Your task to perform on an android device: Add apple airpods pro to the cart on ebay.com Image 0: 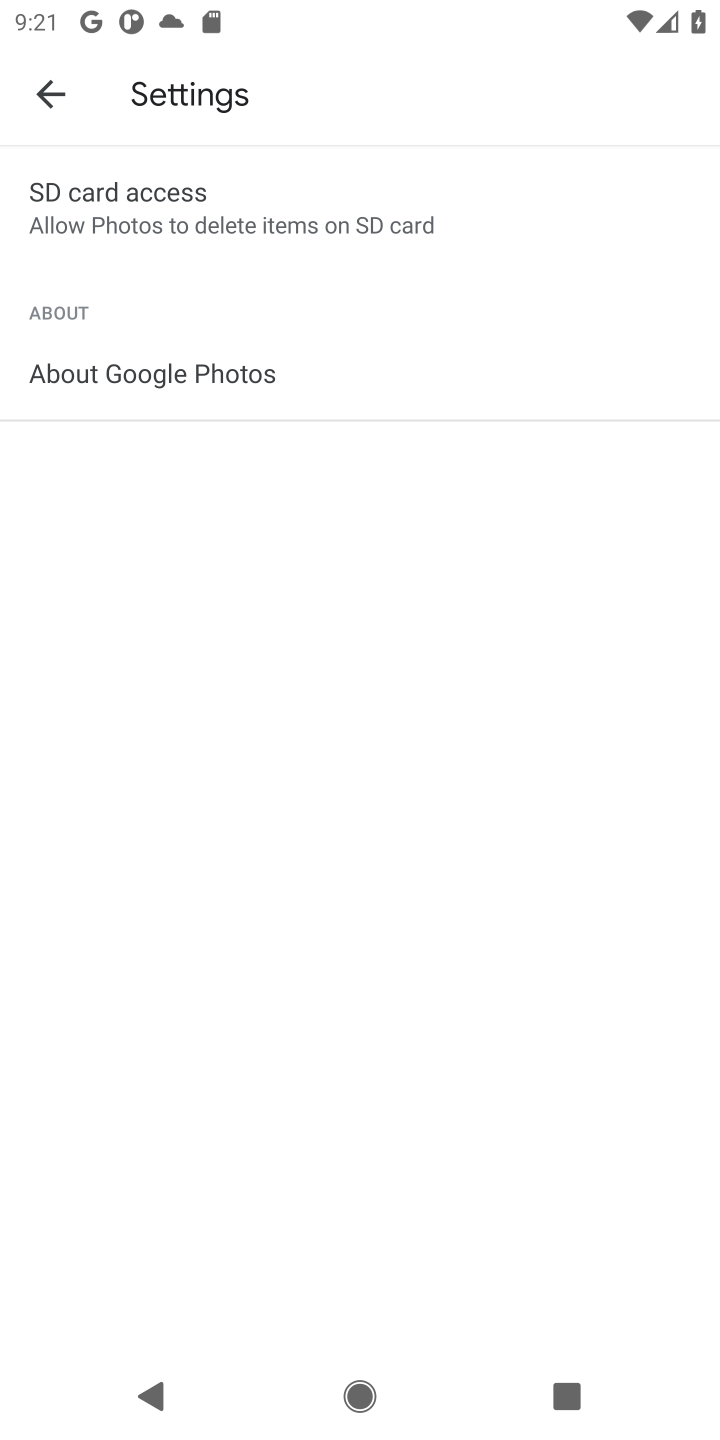
Step 0: press home button
Your task to perform on an android device: Add apple airpods pro to the cart on ebay.com Image 1: 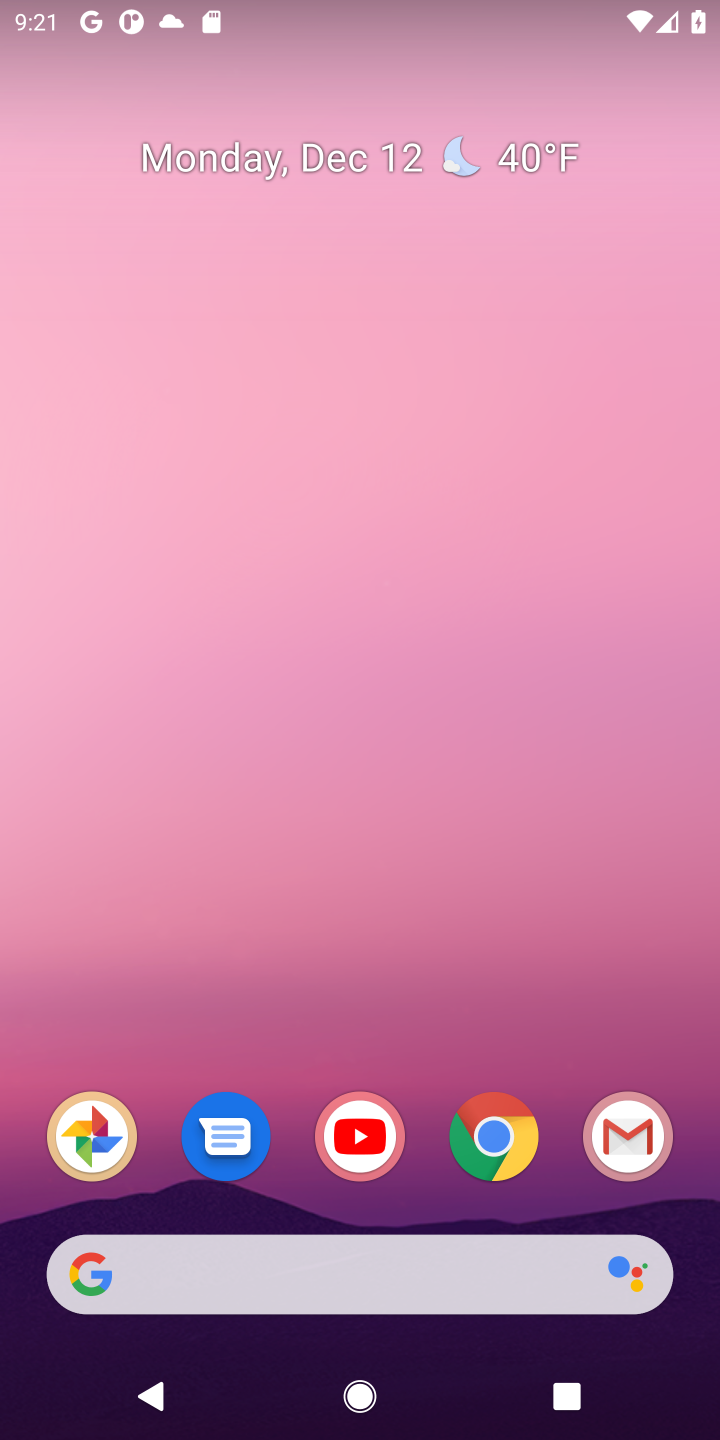
Step 1: click (503, 1145)
Your task to perform on an android device: Add apple airpods pro to the cart on ebay.com Image 2: 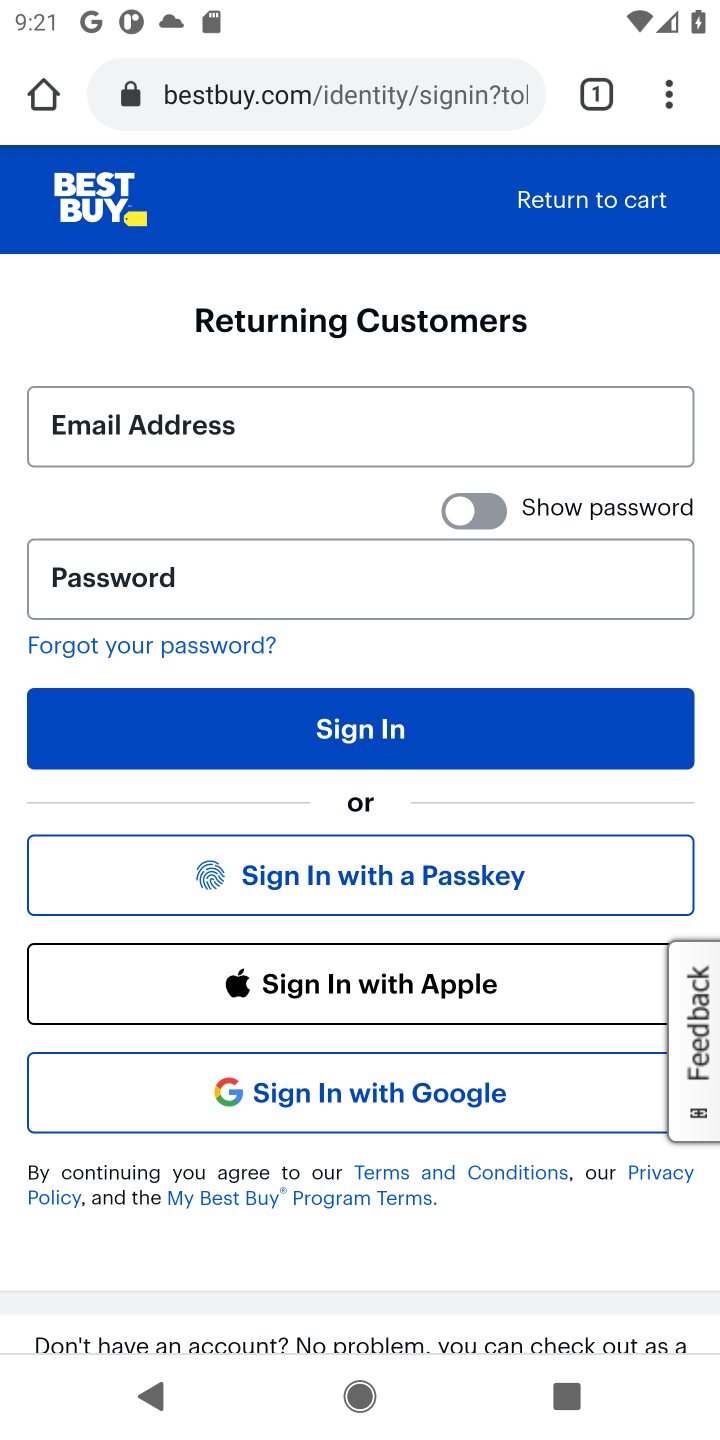
Step 2: click (264, 100)
Your task to perform on an android device: Add apple airpods pro to the cart on ebay.com Image 3: 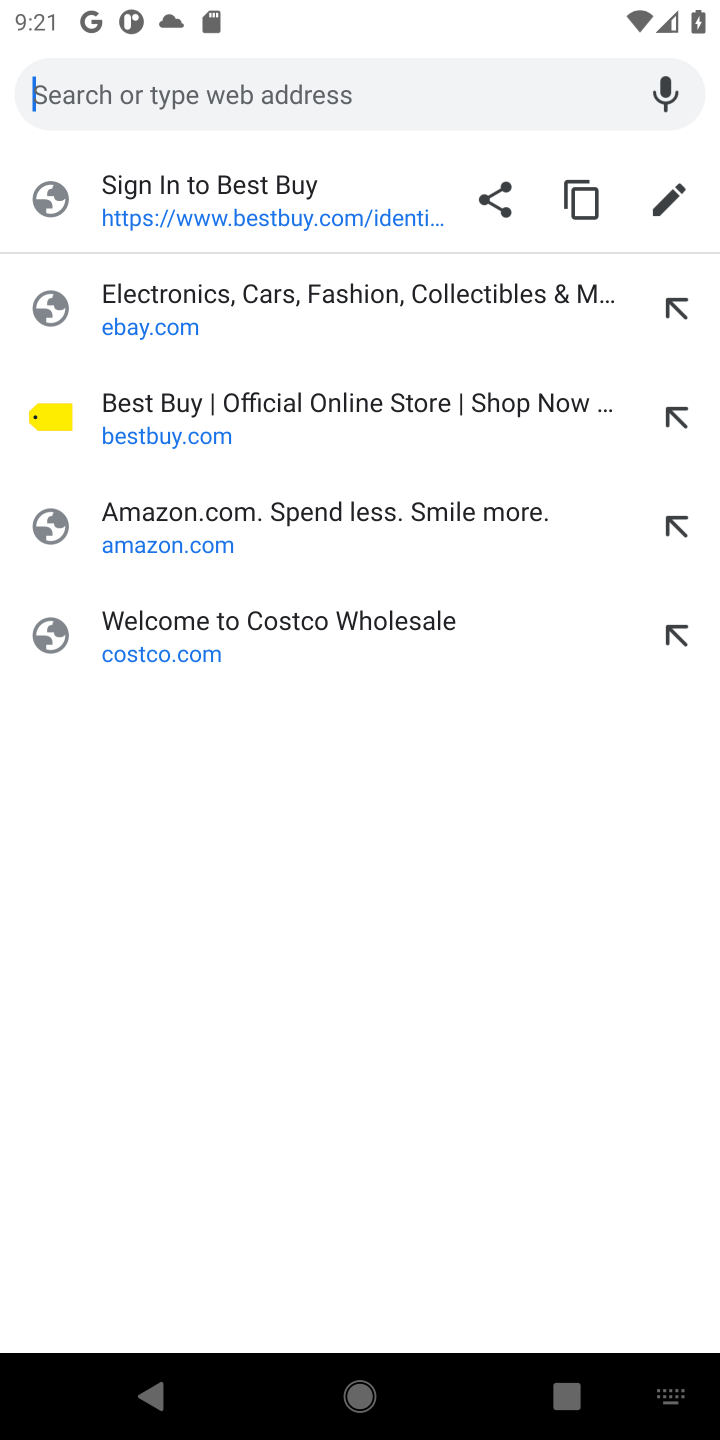
Step 3: click (146, 313)
Your task to perform on an android device: Add apple airpods pro to the cart on ebay.com Image 4: 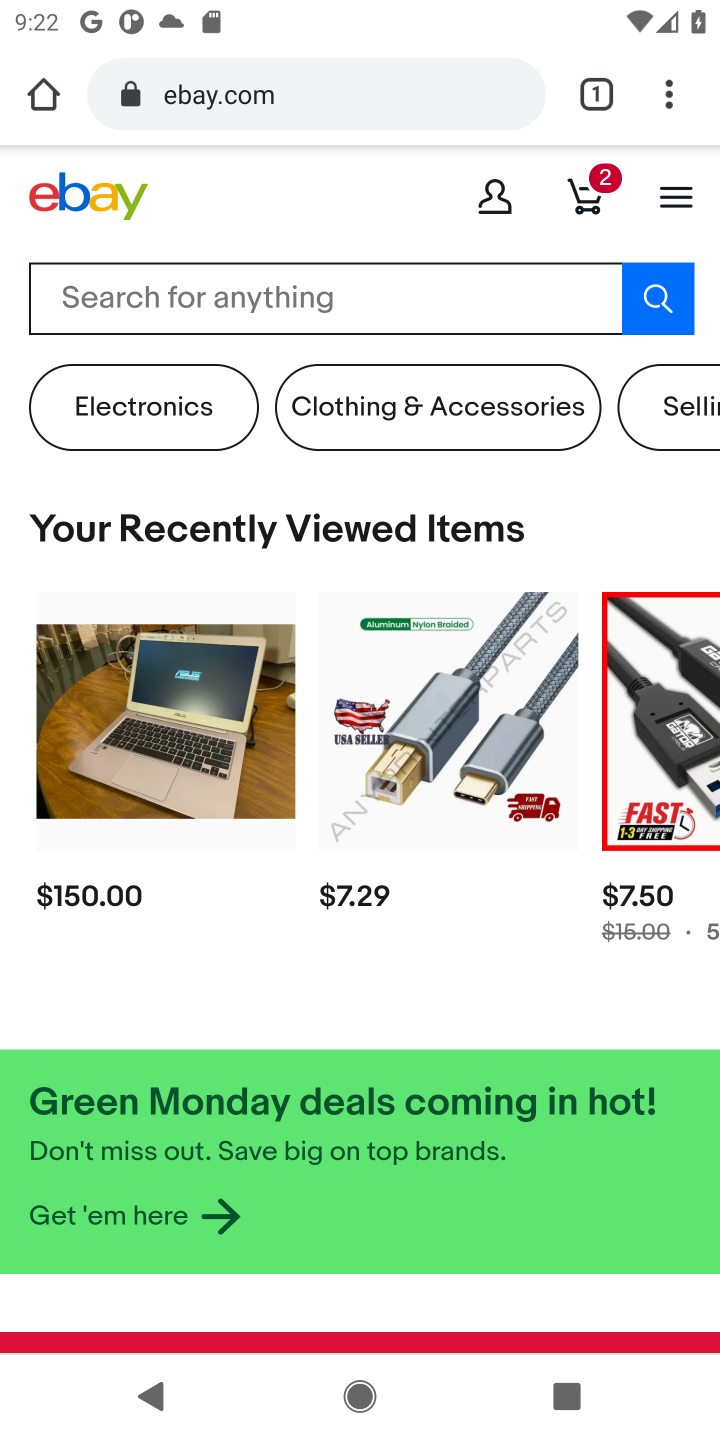
Step 4: click (130, 307)
Your task to perform on an android device: Add apple airpods pro to the cart on ebay.com Image 5: 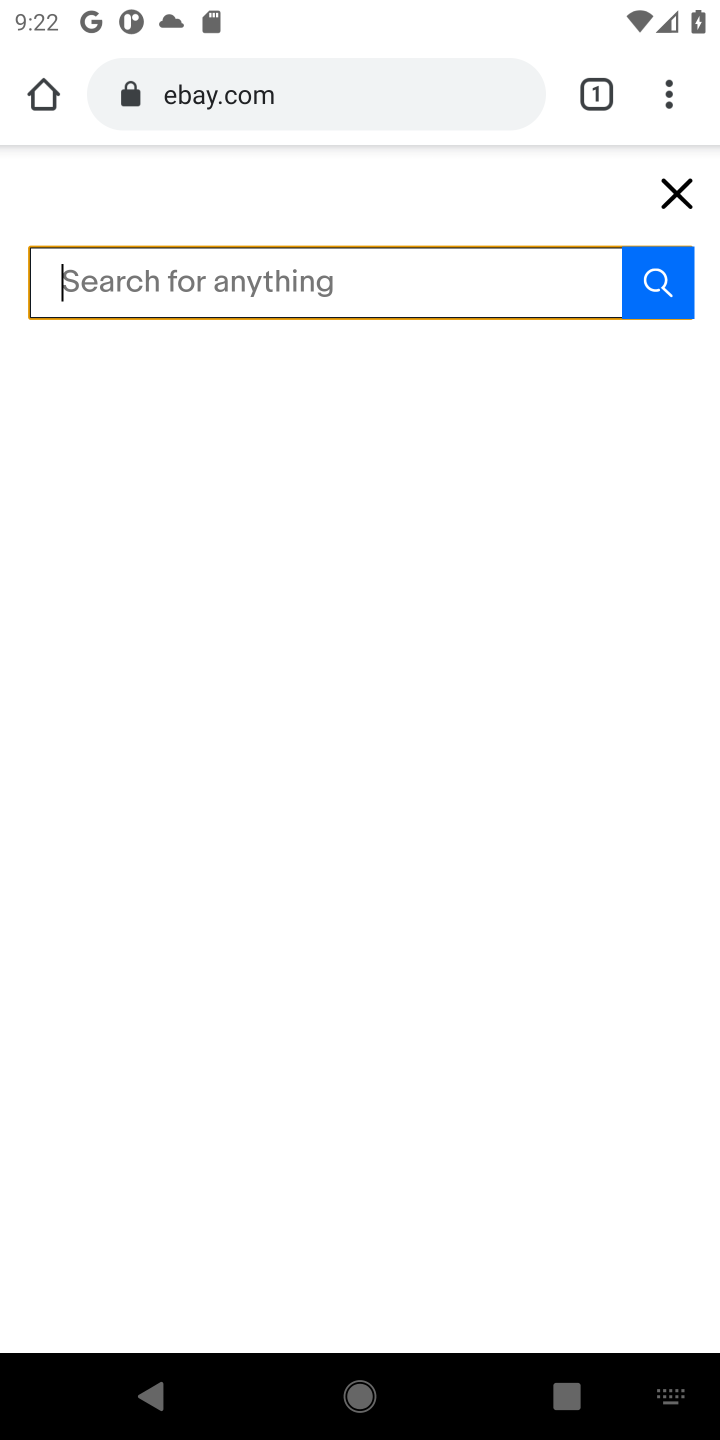
Step 5: type "apple airpods pro"
Your task to perform on an android device: Add apple airpods pro to the cart on ebay.com Image 6: 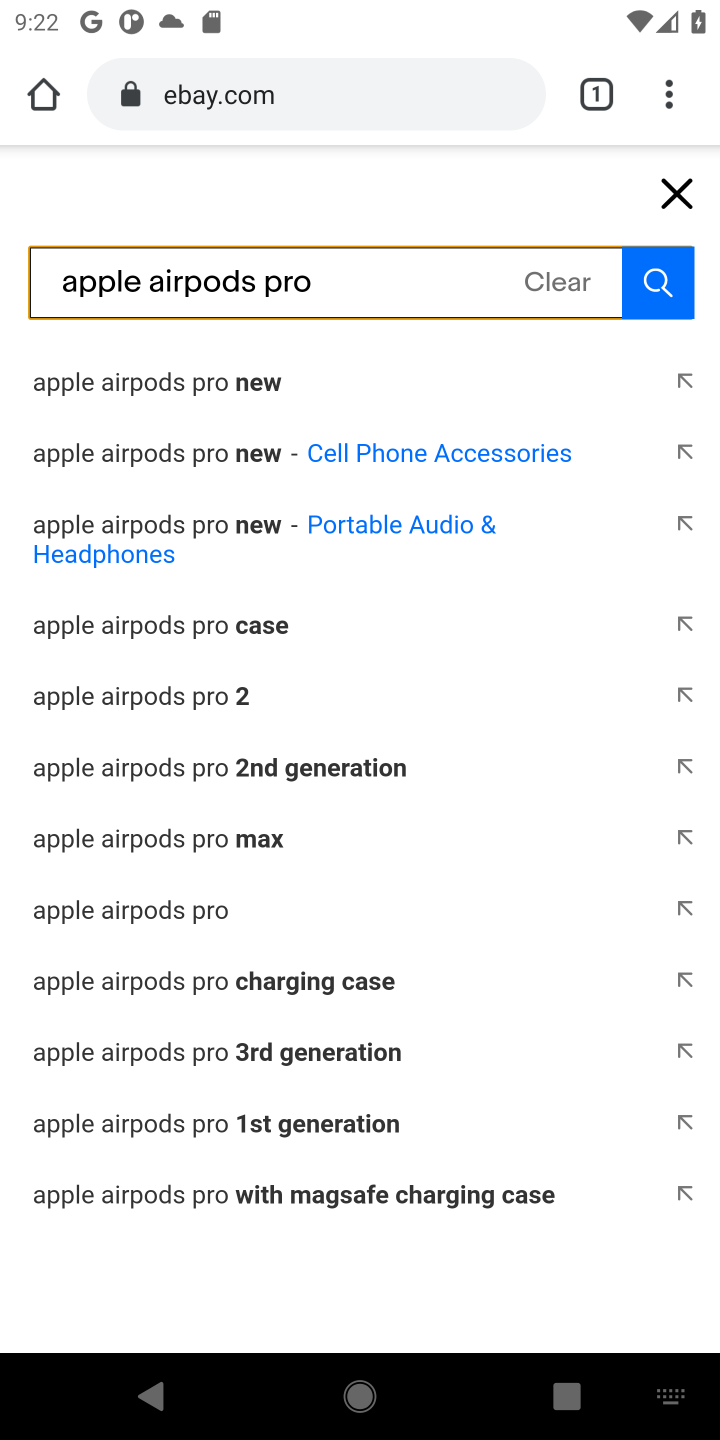
Step 6: click (155, 913)
Your task to perform on an android device: Add apple airpods pro to the cart on ebay.com Image 7: 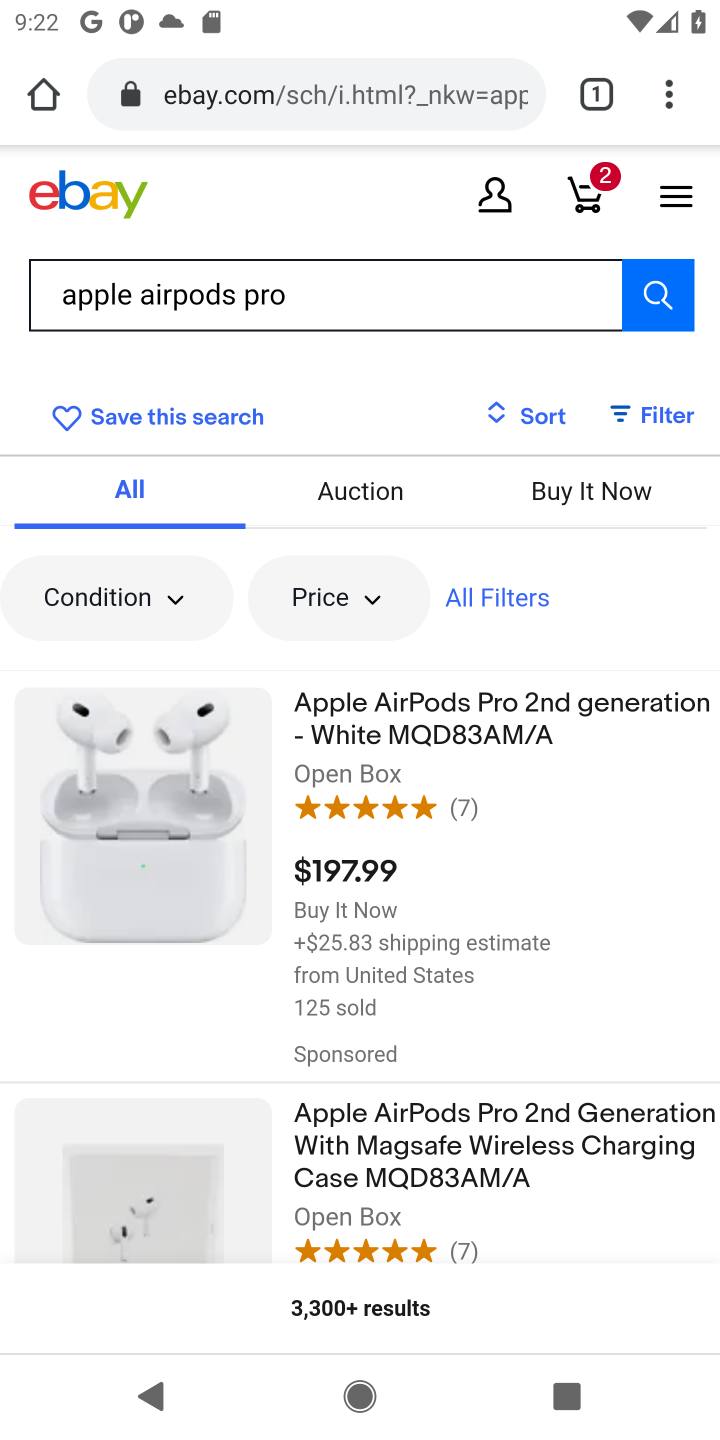
Step 7: click (402, 760)
Your task to perform on an android device: Add apple airpods pro to the cart on ebay.com Image 8: 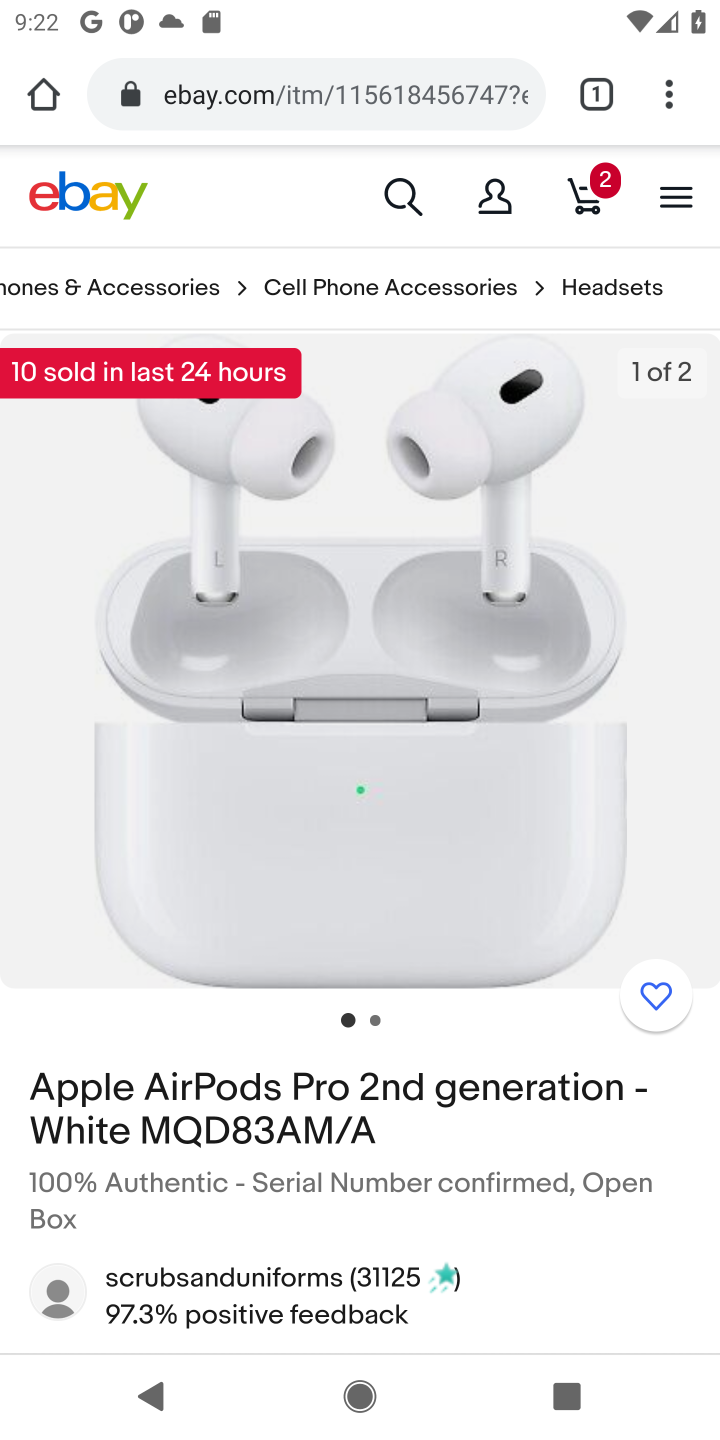
Step 8: drag from (324, 849) to (330, 326)
Your task to perform on an android device: Add apple airpods pro to the cart on ebay.com Image 9: 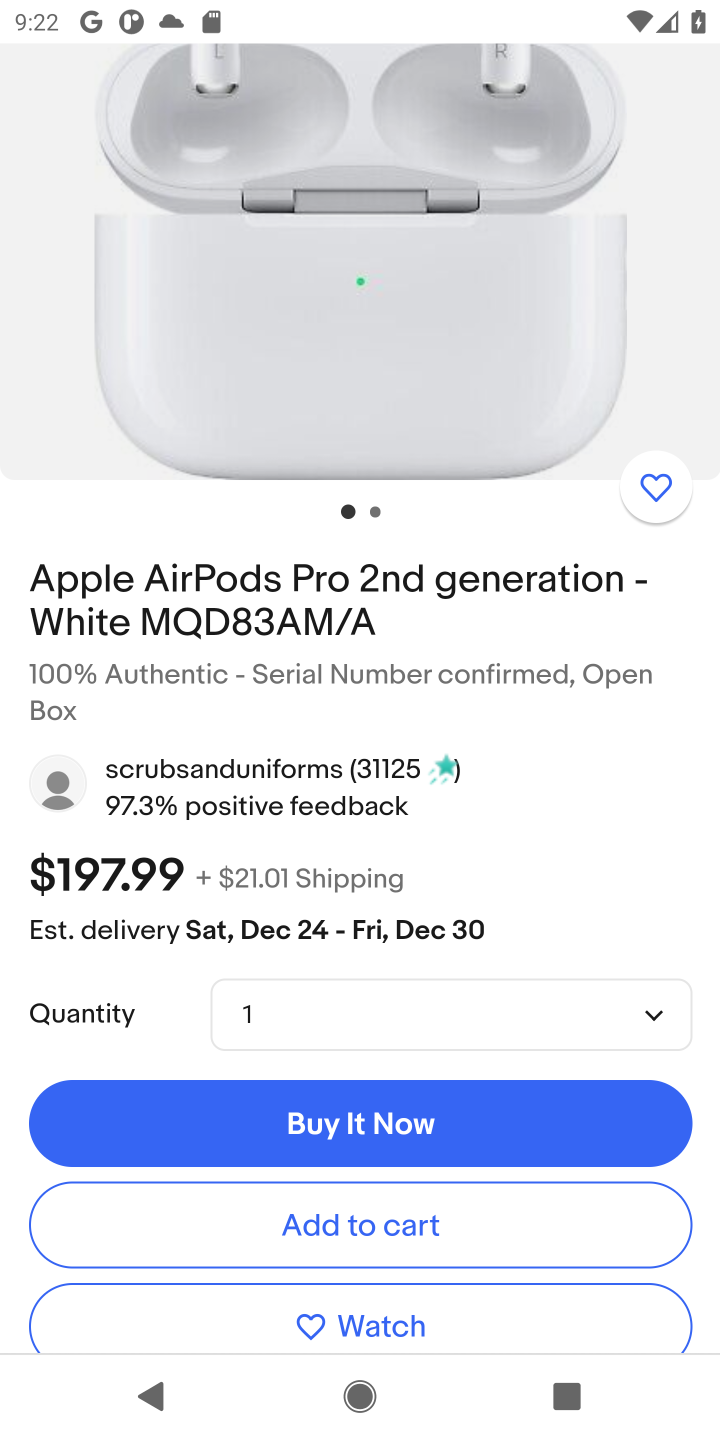
Step 9: click (319, 1221)
Your task to perform on an android device: Add apple airpods pro to the cart on ebay.com Image 10: 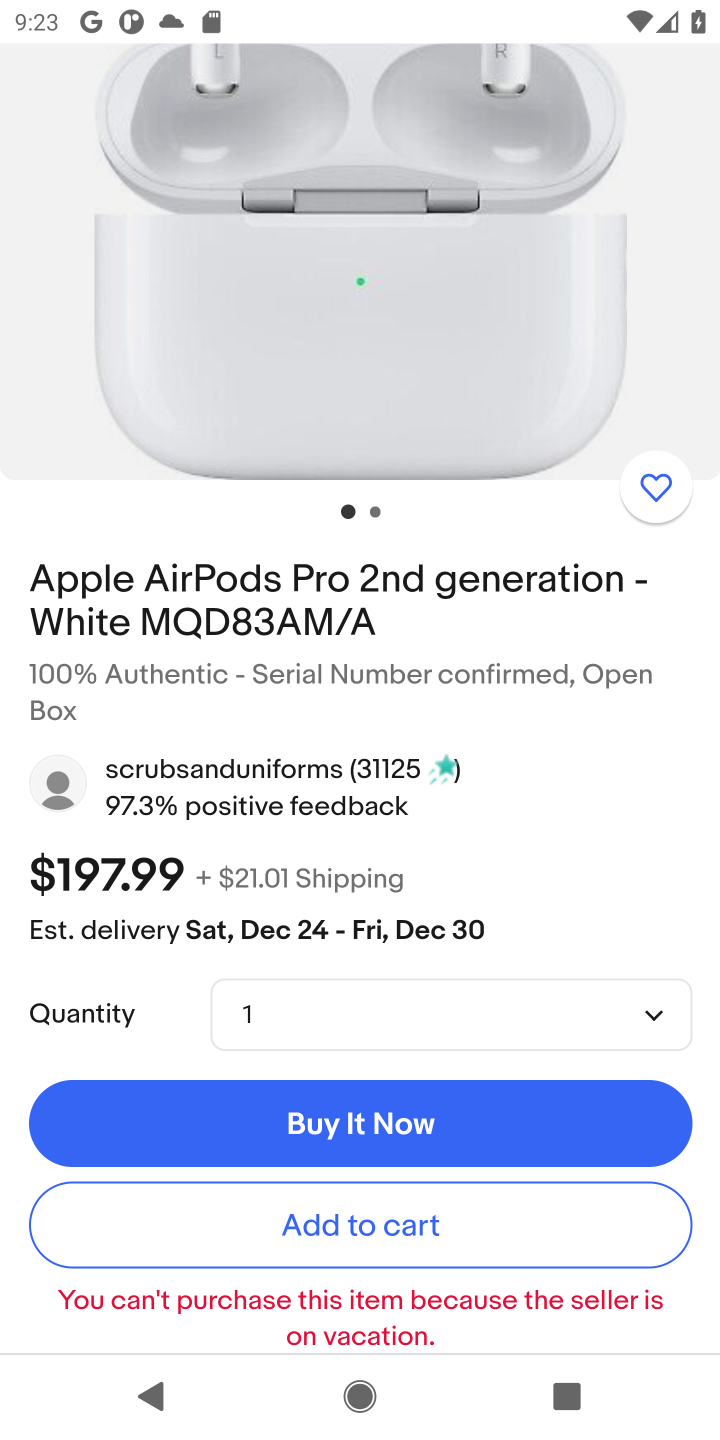
Step 10: press back button
Your task to perform on an android device: Add apple airpods pro to the cart on ebay.com Image 11: 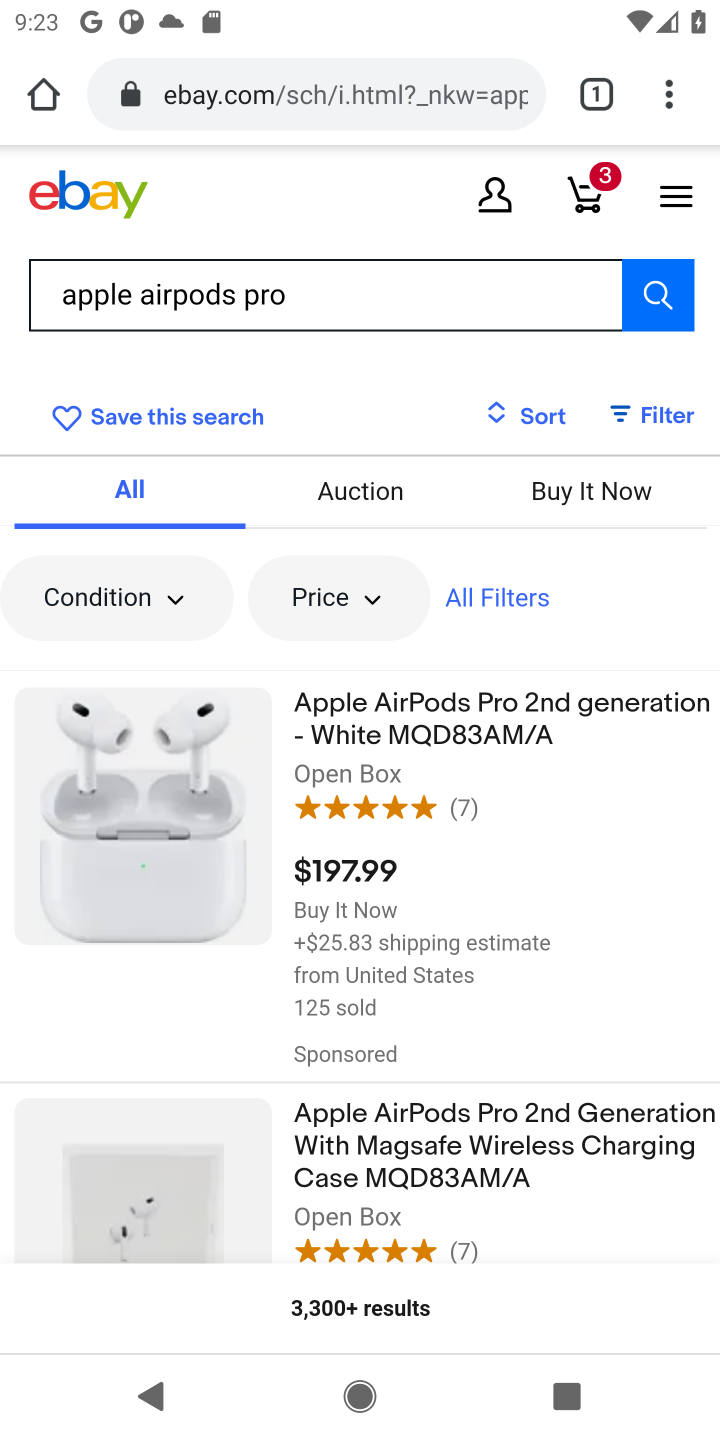
Step 11: drag from (343, 934) to (365, 406)
Your task to perform on an android device: Add apple airpods pro to the cart on ebay.com Image 12: 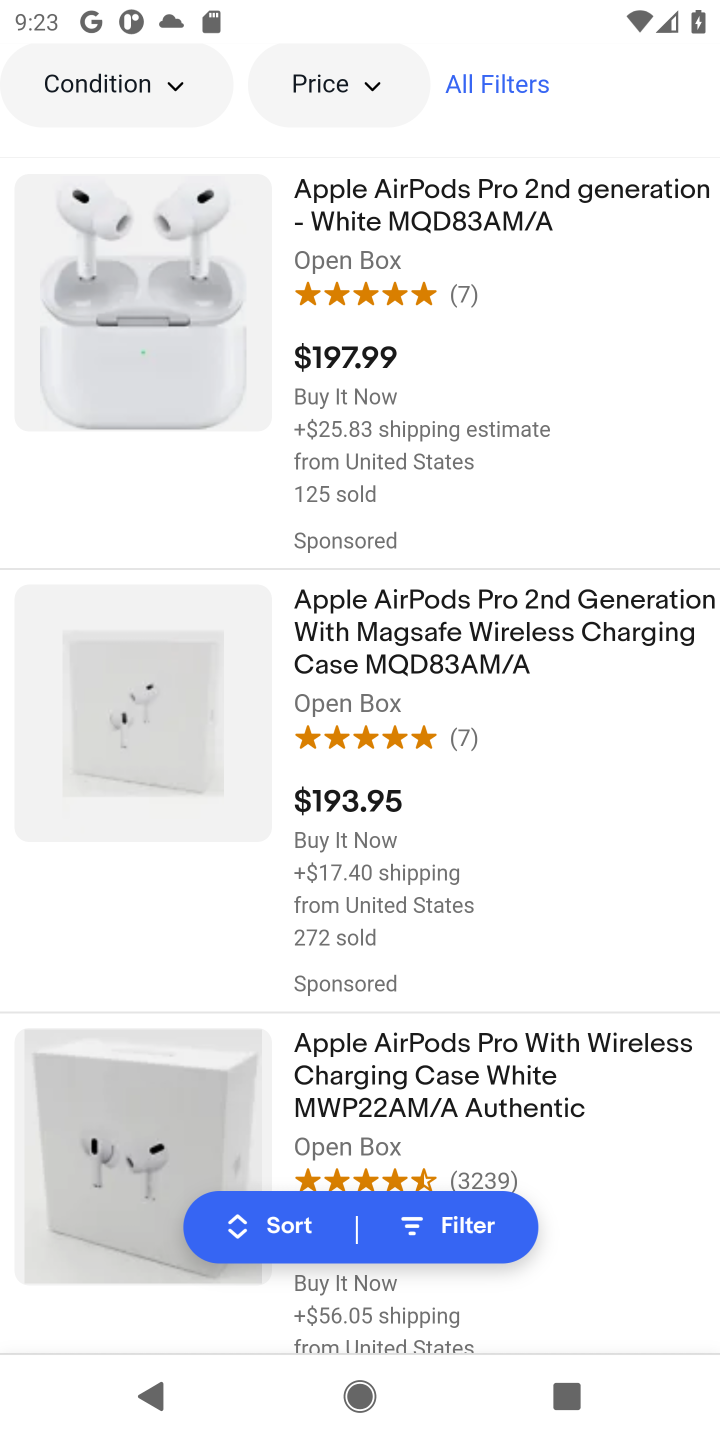
Step 12: click (343, 663)
Your task to perform on an android device: Add apple airpods pro to the cart on ebay.com Image 13: 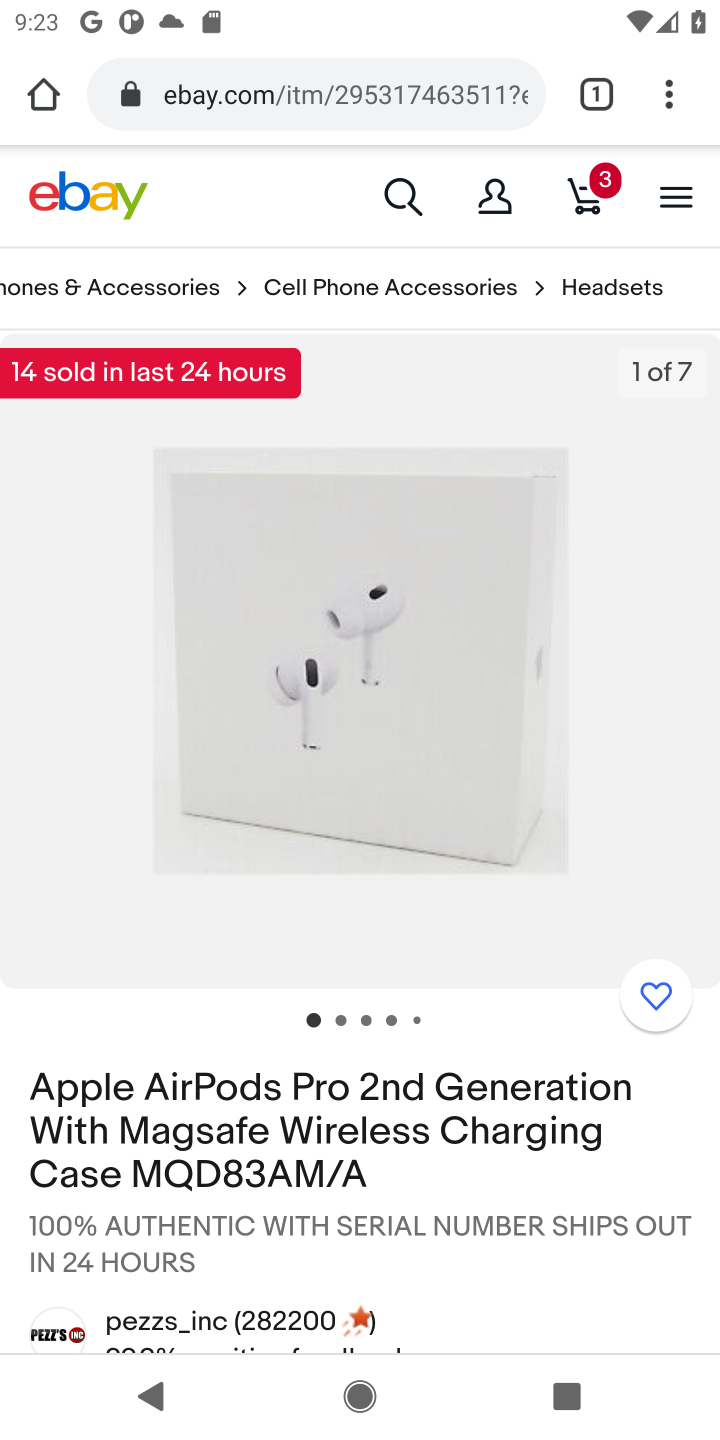
Step 13: drag from (303, 986) to (338, 308)
Your task to perform on an android device: Add apple airpods pro to the cart on ebay.com Image 14: 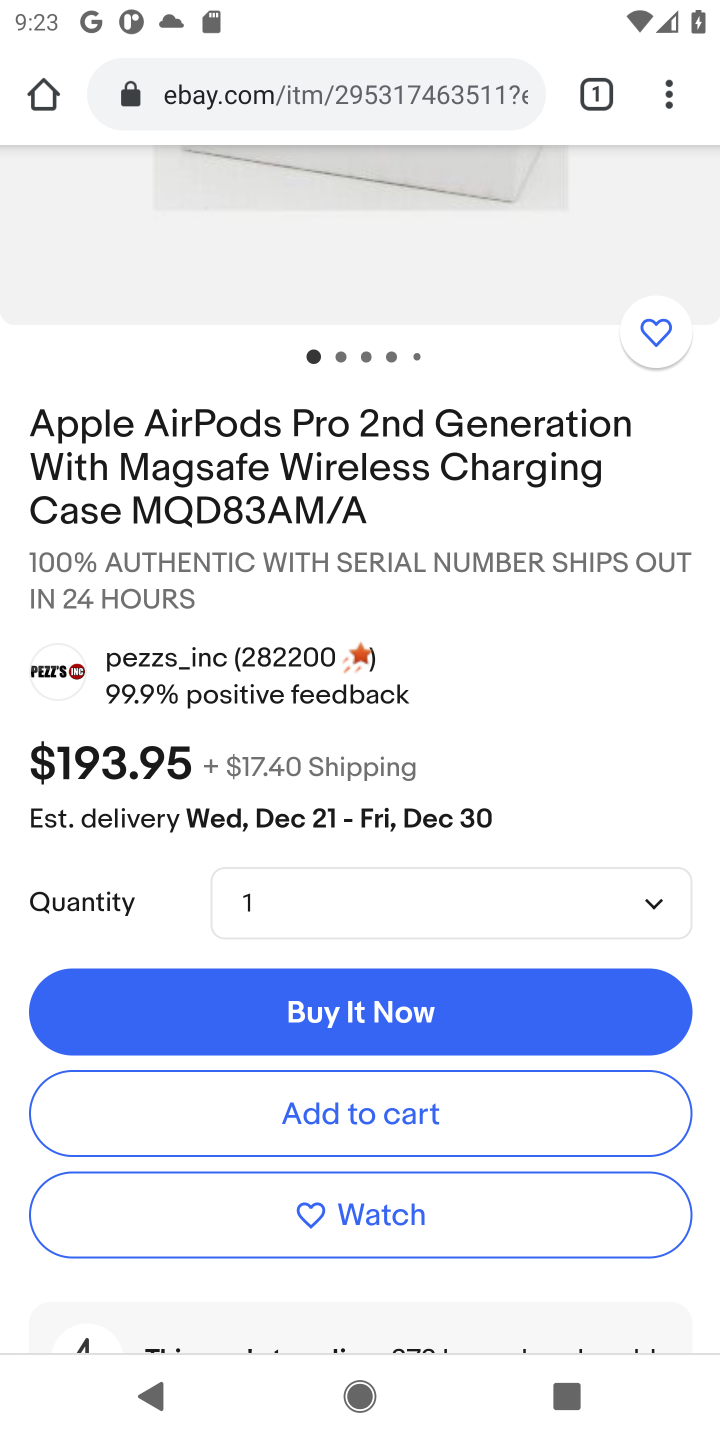
Step 14: click (278, 1118)
Your task to perform on an android device: Add apple airpods pro to the cart on ebay.com Image 15: 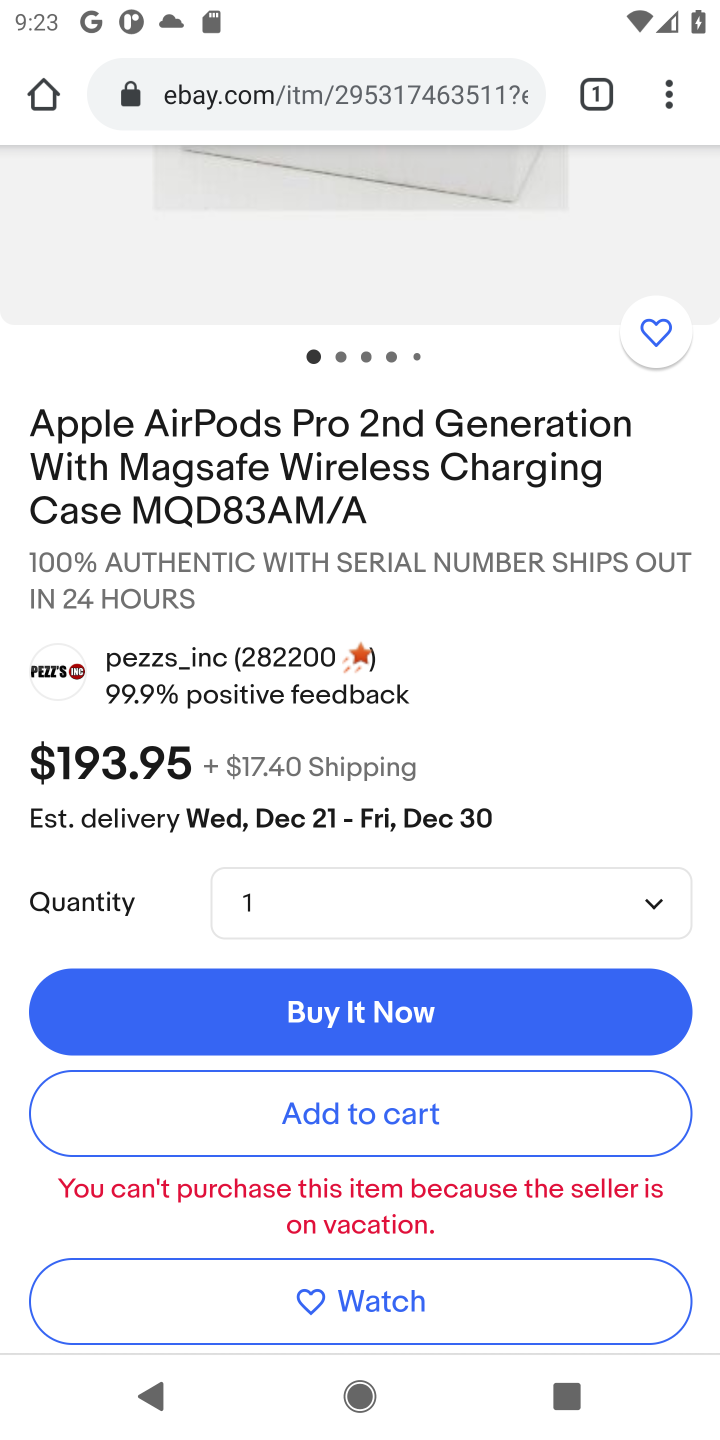
Step 15: task complete